Your task to perform on an android device: see creations saved in the google photos Image 0: 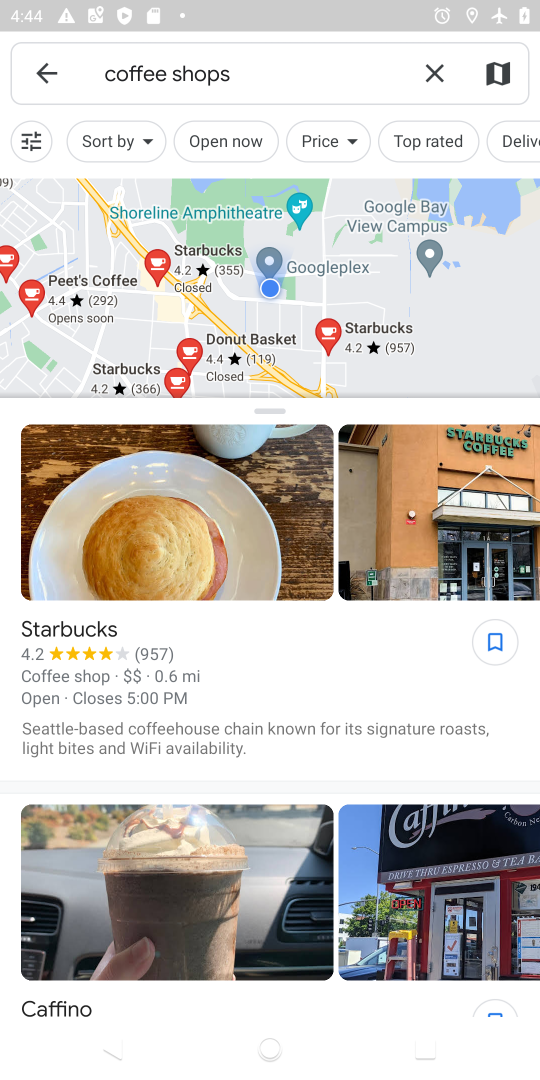
Step 0: press home button
Your task to perform on an android device: see creations saved in the google photos Image 1: 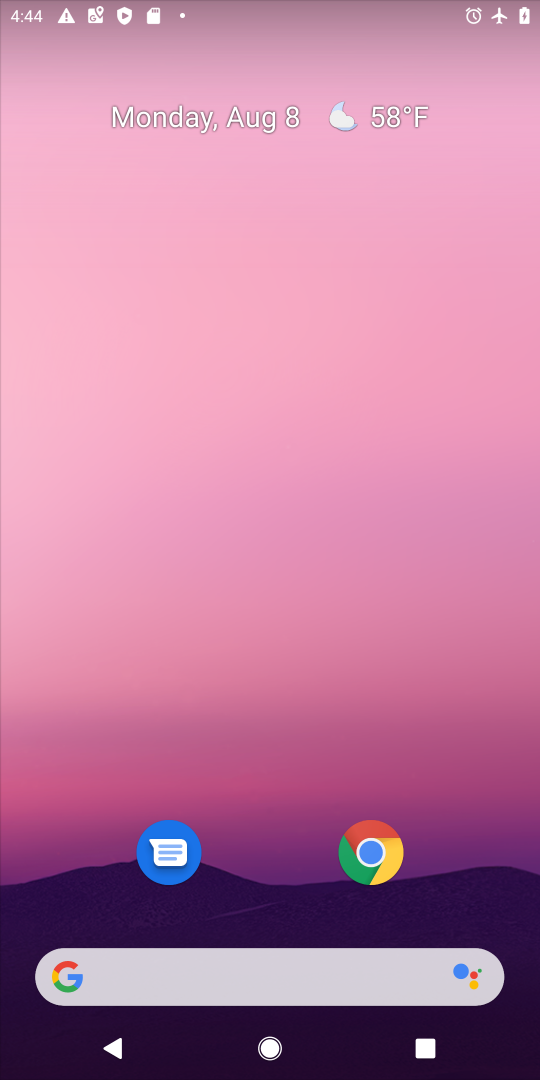
Step 1: drag from (296, 872) to (334, 136)
Your task to perform on an android device: see creations saved in the google photos Image 2: 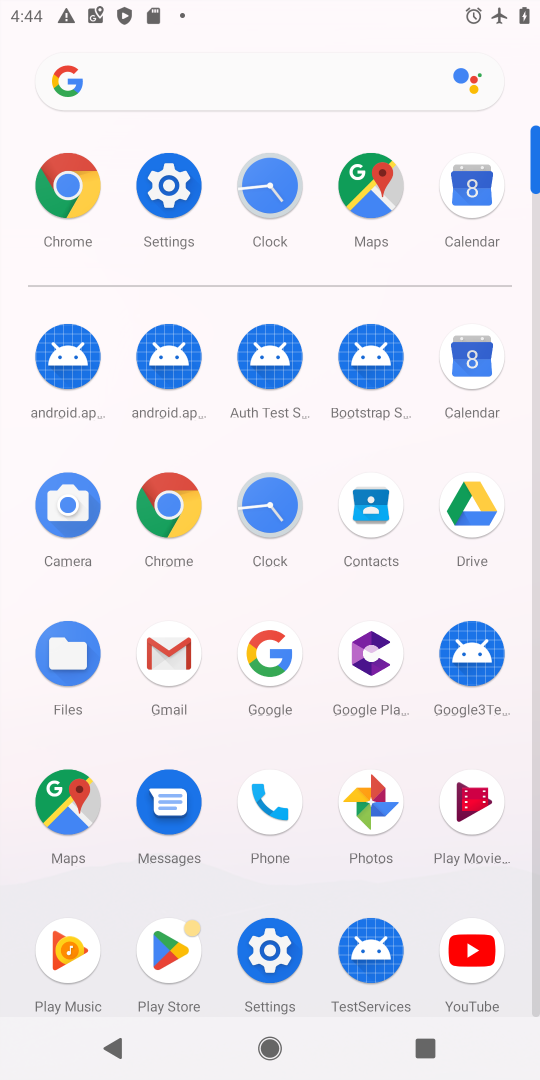
Step 2: click (372, 795)
Your task to perform on an android device: see creations saved in the google photos Image 3: 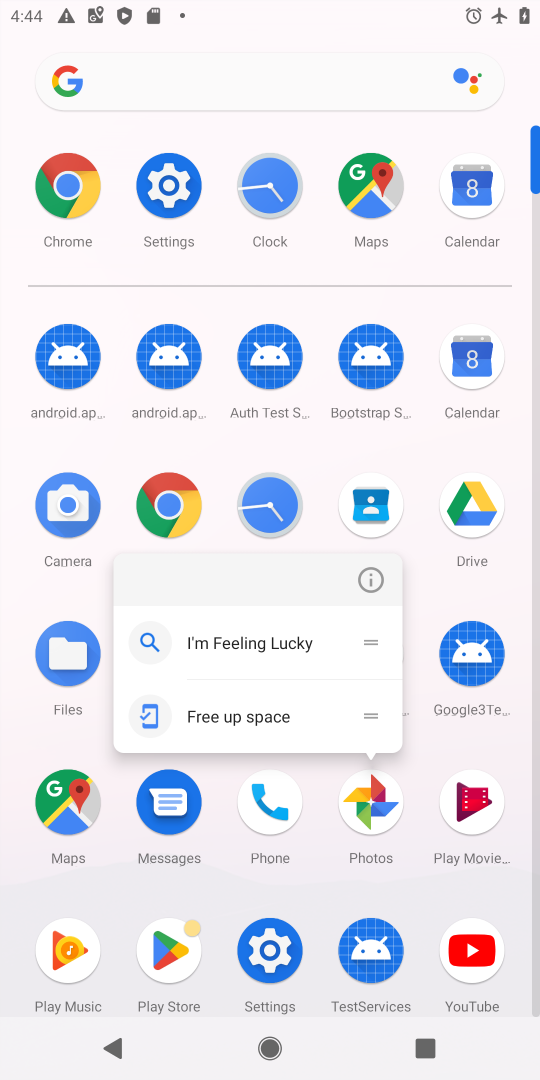
Step 3: click (366, 806)
Your task to perform on an android device: see creations saved in the google photos Image 4: 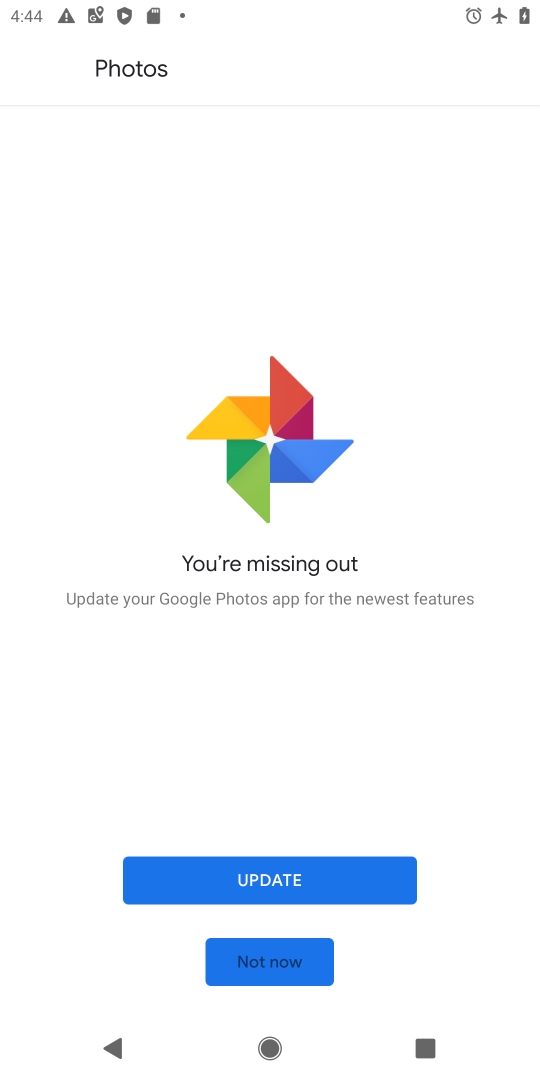
Step 4: click (474, 968)
Your task to perform on an android device: see creations saved in the google photos Image 5: 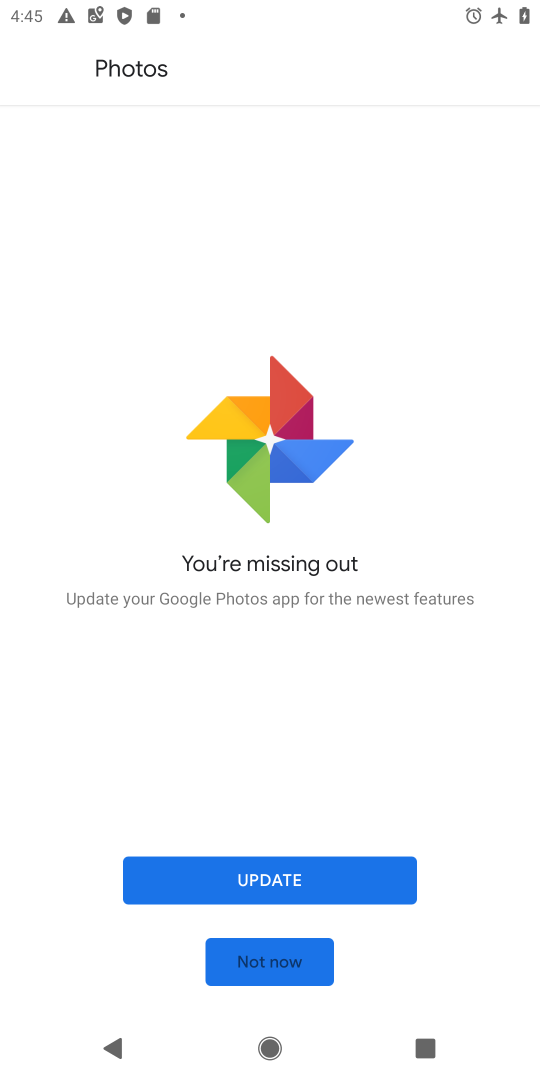
Step 5: click (315, 961)
Your task to perform on an android device: see creations saved in the google photos Image 6: 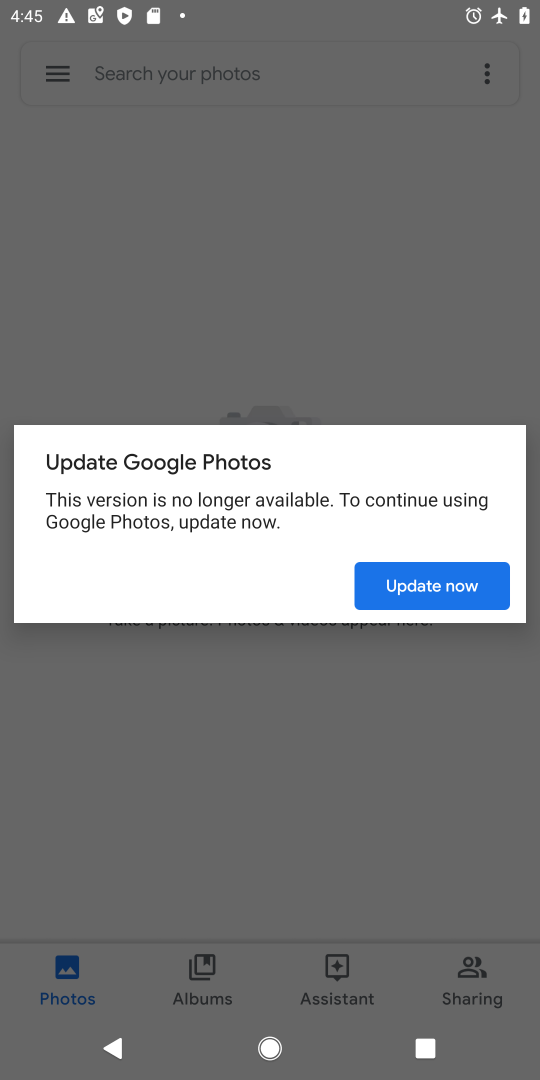
Step 6: click (479, 589)
Your task to perform on an android device: see creations saved in the google photos Image 7: 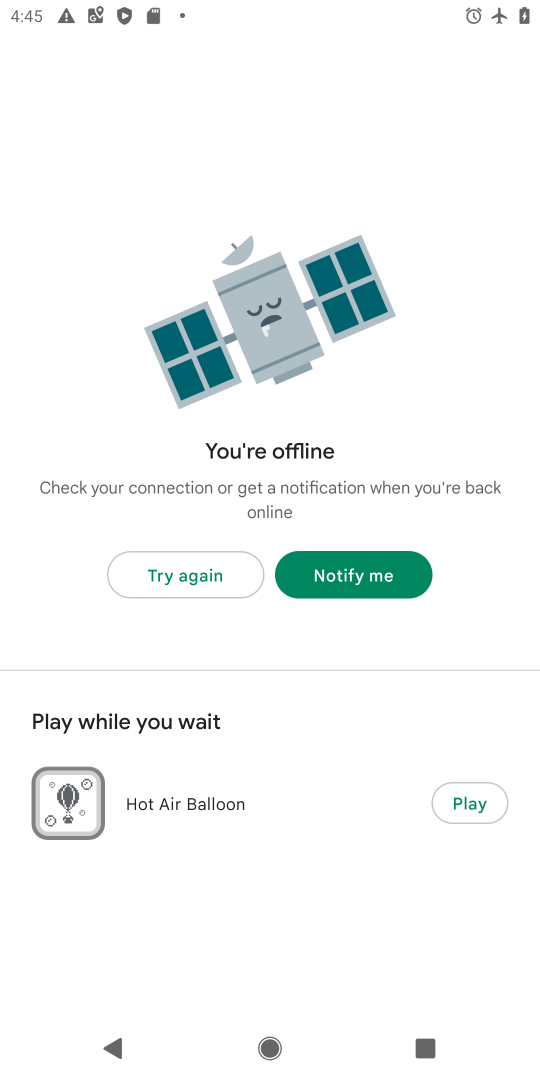
Step 7: task complete